Your task to perform on an android device: Do I have any events this weekend? Image 0: 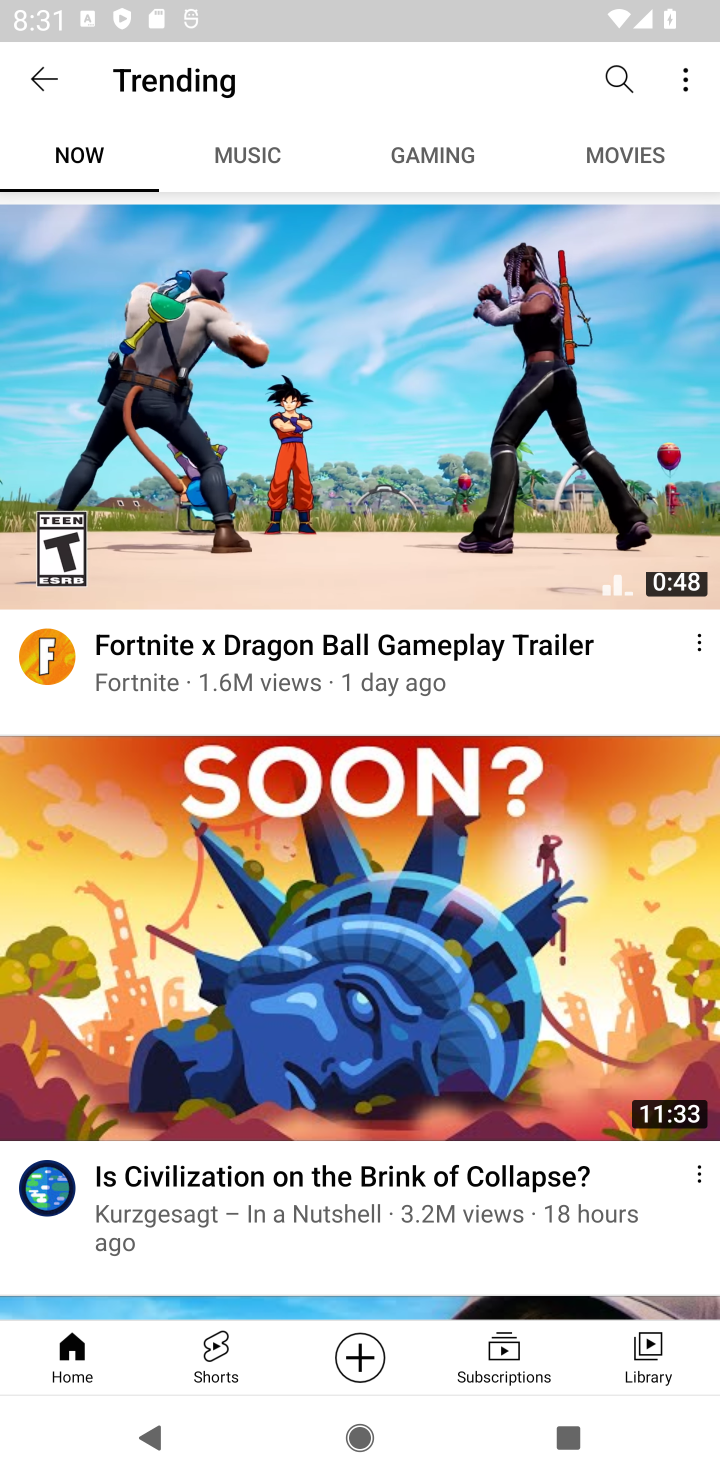
Step 0: press home button
Your task to perform on an android device: Do I have any events this weekend? Image 1: 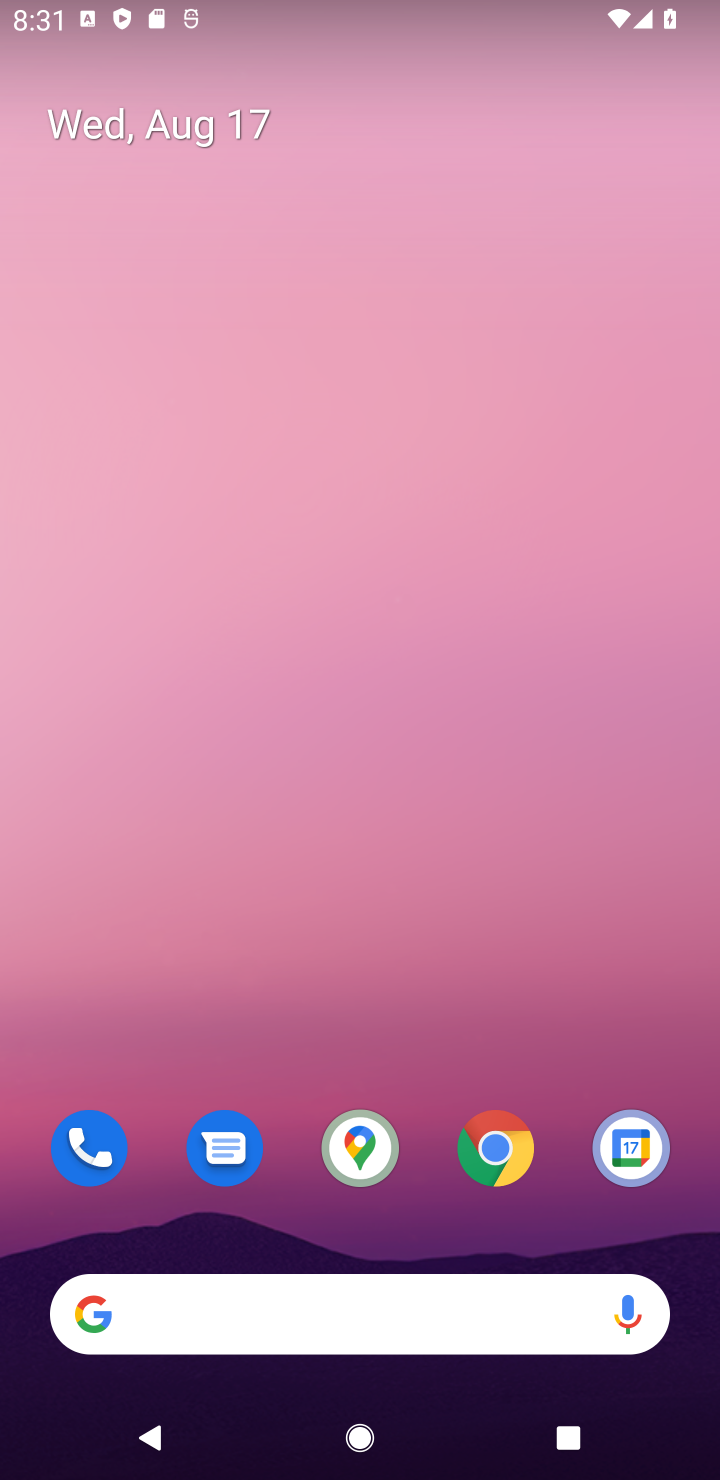
Step 1: click (630, 1148)
Your task to perform on an android device: Do I have any events this weekend? Image 2: 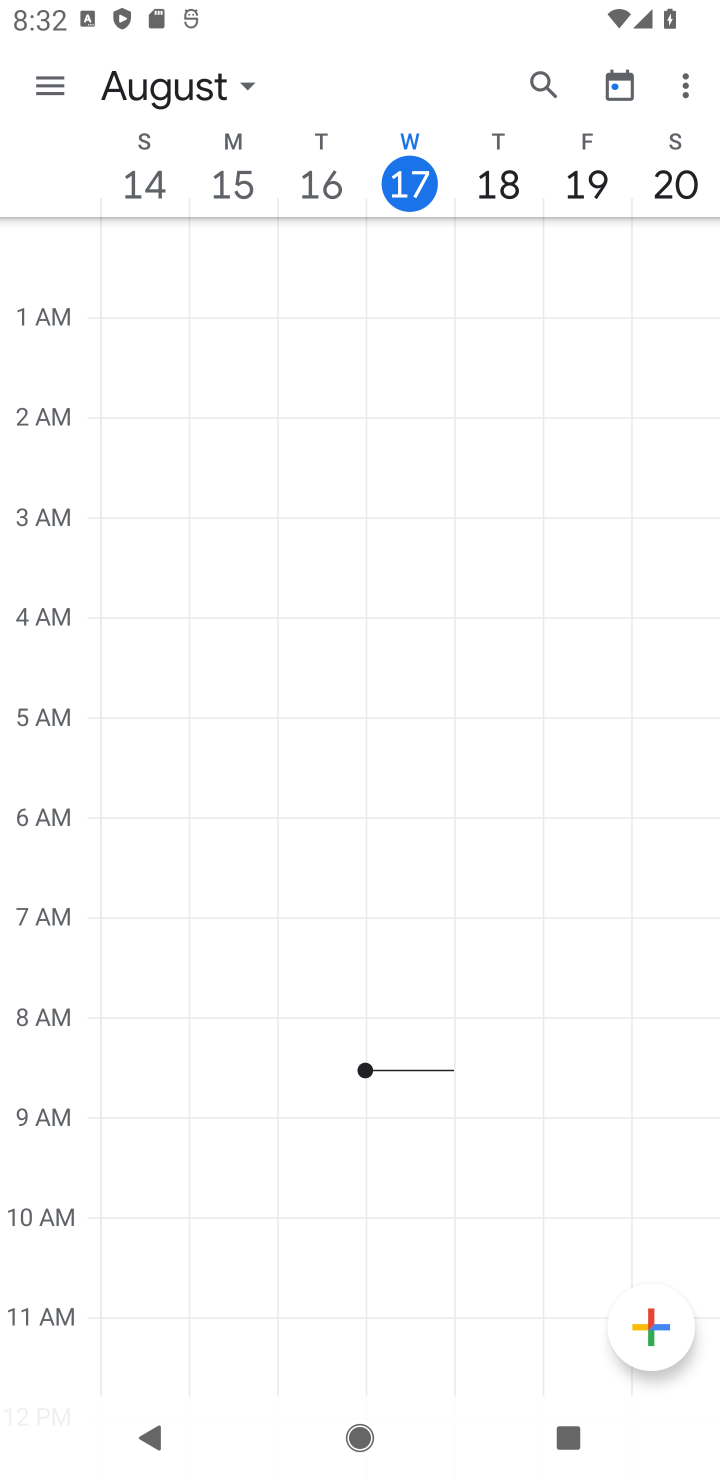
Step 2: task complete